Your task to perform on an android device: Go to network settings Image 0: 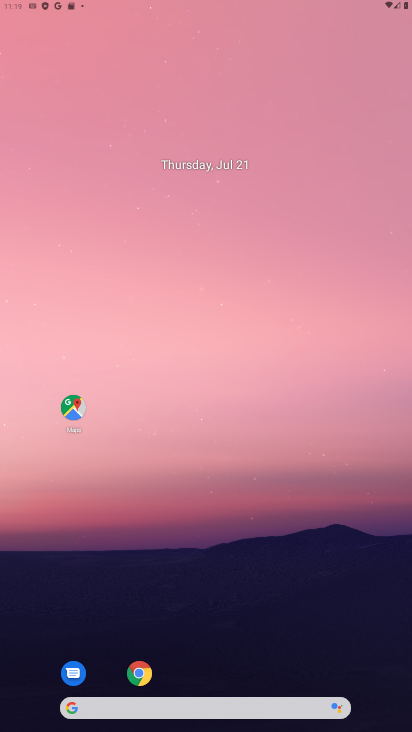
Step 0: press home button
Your task to perform on an android device: Go to network settings Image 1: 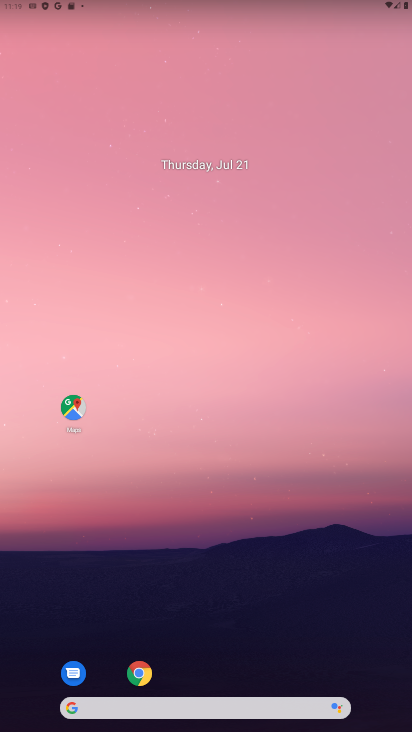
Step 1: drag from (223, 671) to (265, 39)
Your task to perform on an android device: Go to network settings Image 2: 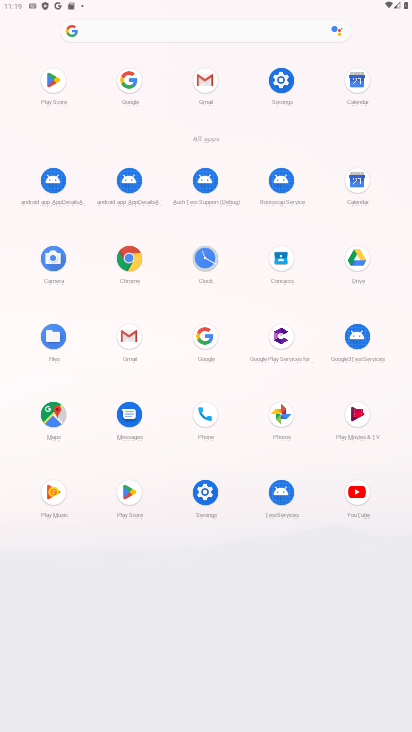
Step 2: click (280, 73)
Your task to perform on an android device: Go to network settings Image 3: 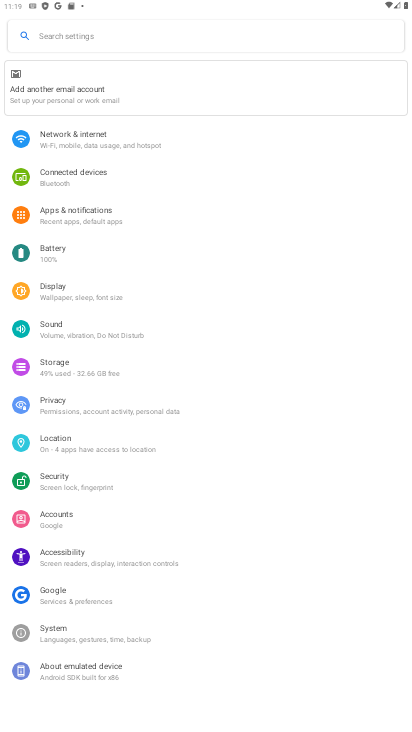
Step 3: click (97, 138)
Your task to perform on an android device: Go to network settings Image 4: 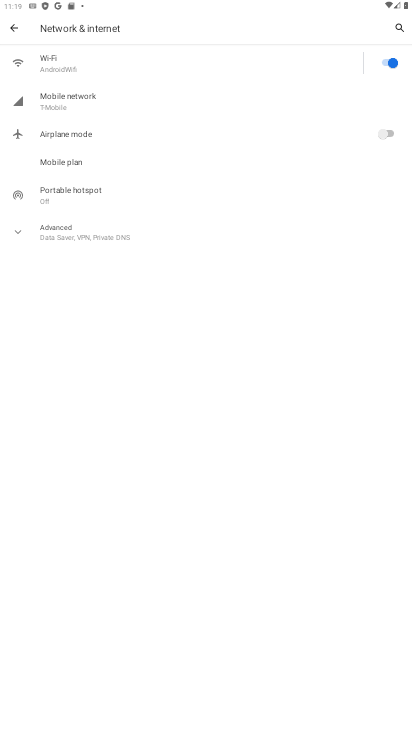
Step 4: click (32, 232)
Your task to perform on an android device: Go to network settings Image 5: 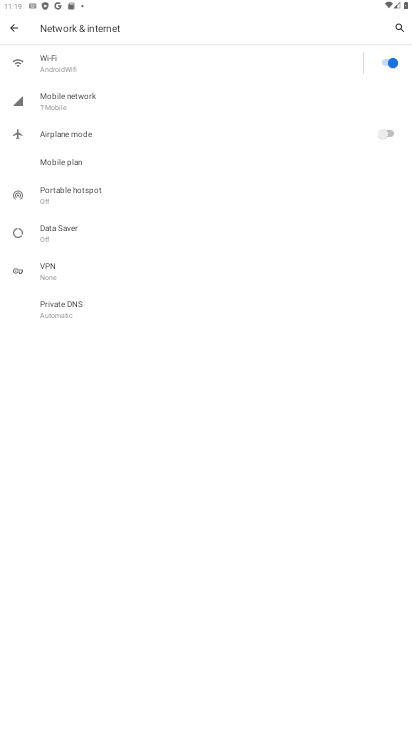
Step 5: task complete